Your task to perform on an android device: What's the weather going to be tomorrow? Image 0: 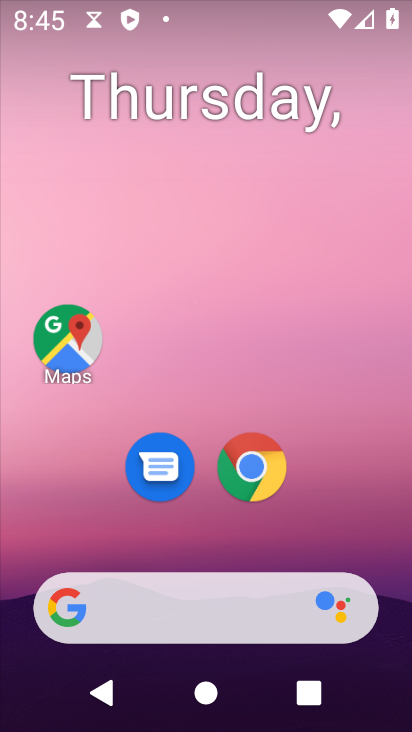
Step 0: drag from (268, 544) to (384, 17)
Your task to perform on an android device: What's the weather going to be tomorrow? Image 1: 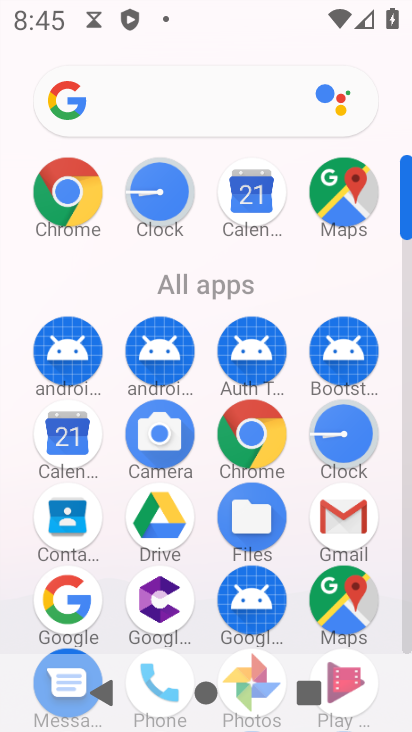
Step 1: click (184, 115)
Your task to perform on an android device: What's the weather going to be tomorrow? Image 2: 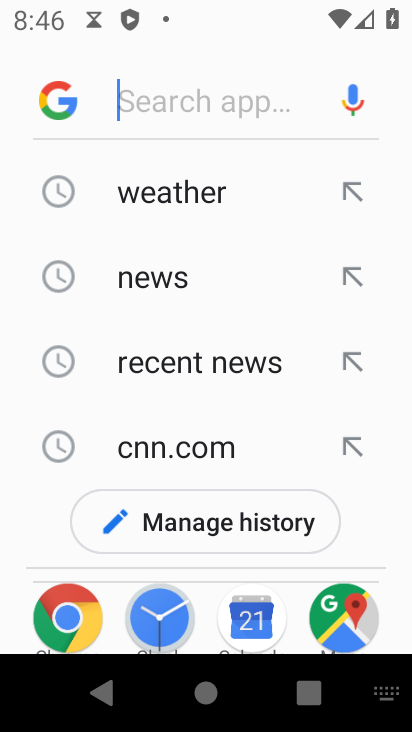
Step 2: type "what's the weather going to be tomorrow"
Your task to perform on an android device: What's the weather going to be tomorrow? Image 3: 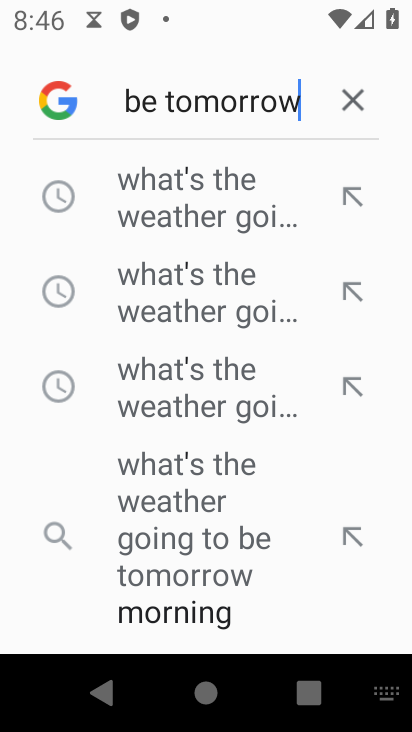
Step 3: click (221, 185)
Your task to perform on an android device: What's the weather going to be tomorrow? Image 4: 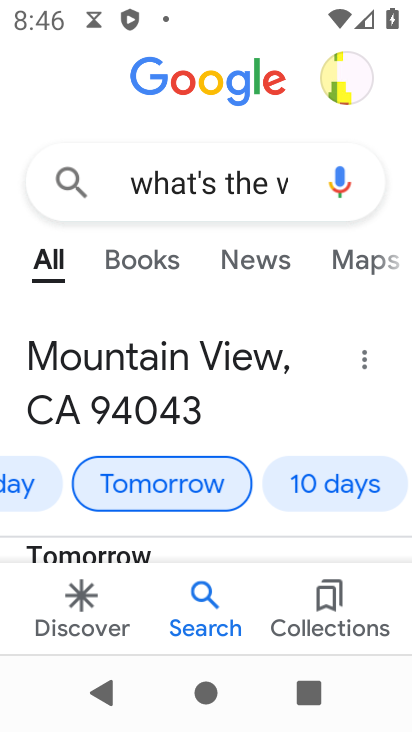
Step 4: task complete